Your task to perform on an android device: turn vacation reply on in the gmail app Image 0: 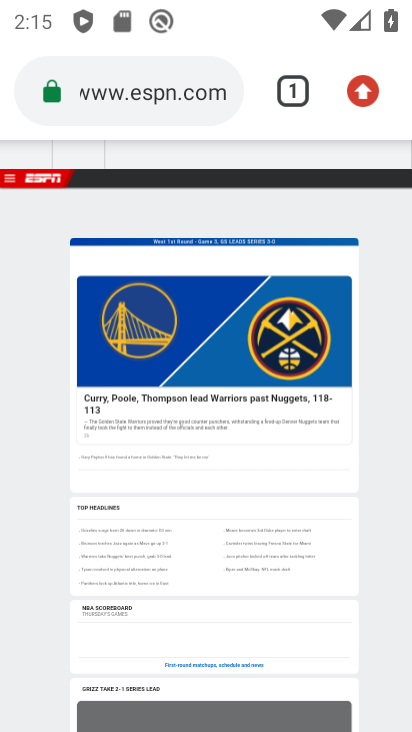
Step 0: press home button
Your task to perform on an android device: turn vacation reply on in the gmail app Image 1: 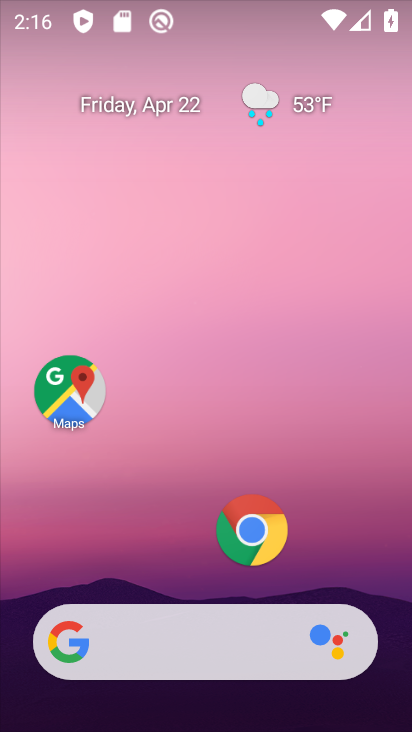
Step 1: drag from (183, 641) to (225, 316)
Your task to perform on an android device: turn vacation reply on in the gmail app Image 2: 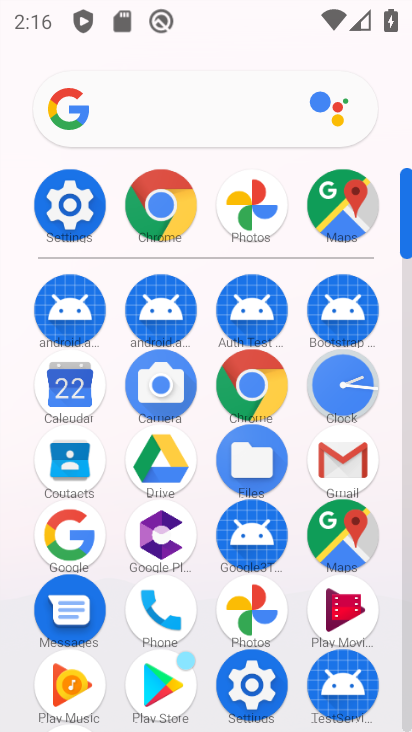
Step 2: click (332, 451)
Your task to perform on an android device: turn vacation reply on in the gmail app Image 3: 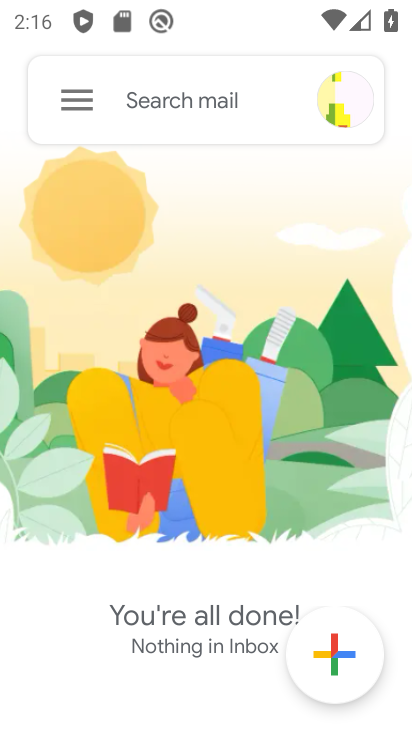
Step 3: click (83, 113)
Your task to perform on an android device: turn vacation reply on in the gmail app Image 4: 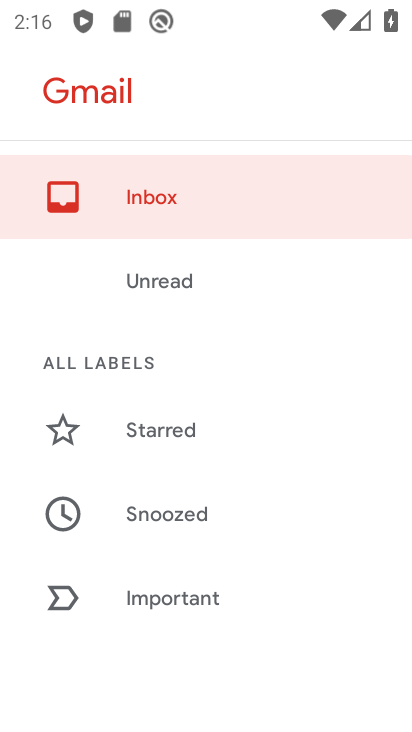
Step 4: drag from (230, 554) to (177, 184)
Your task to perform on an android device: turn vacation reply on in the gmail app Image 5: 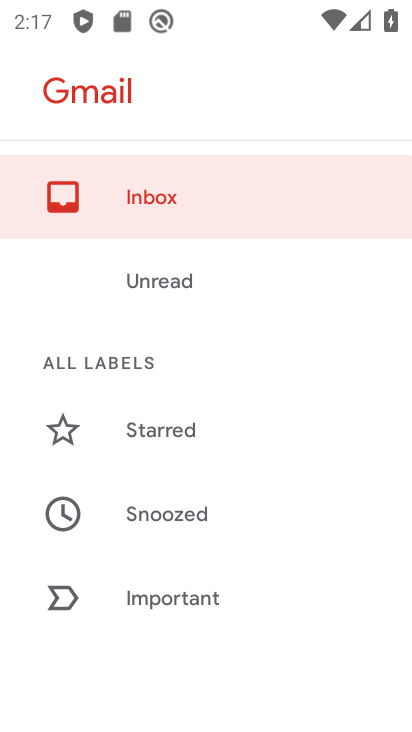
Step 5: drag from (232, 688) to (250, 10)
Your task to perform on an android device: turn vacation reply on in the gmail app Image 6: 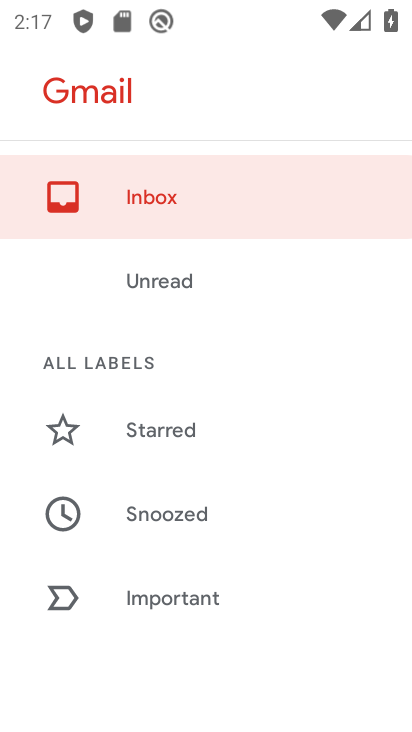
Step 6: drag from (221, 534) to (229, 77)
Your task to perform on an android device: turn vacation reply on in the gmail app Image 7: 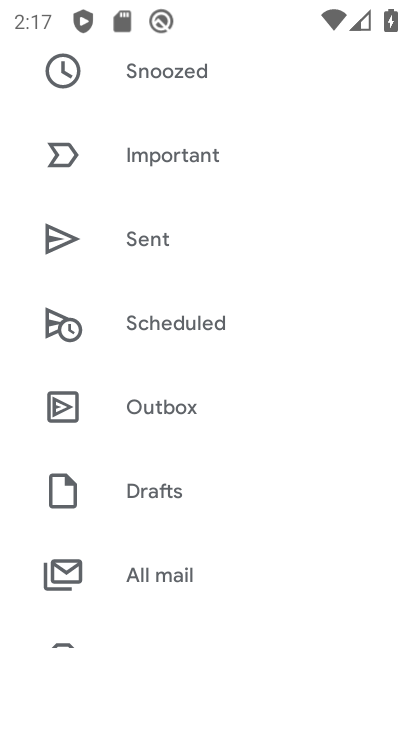
Step 7: drag from (308, 650) to (249, 2)
Your task to perform on an android device: turn vacation reply on in the gmail app Image 8: 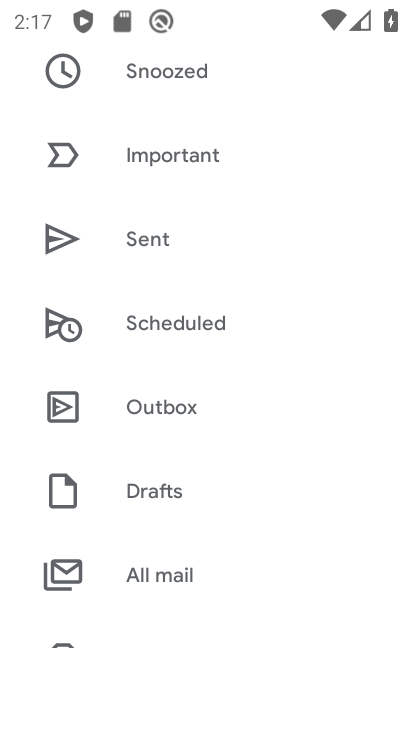
Step 8: drag from (240, 544) to (230, 28)
Your task to perform on an android device: turn vacation reply on in the gmail app Image 9: 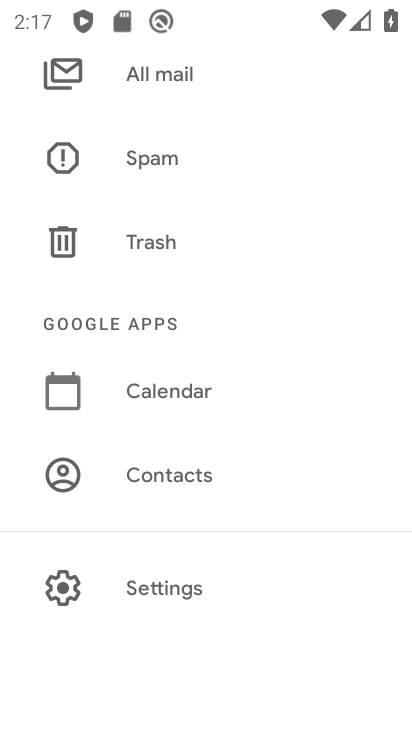
Step 9: click (189, 593)
Your task to perform on an android device: turn vacation reply on in the gmail app Image 10: 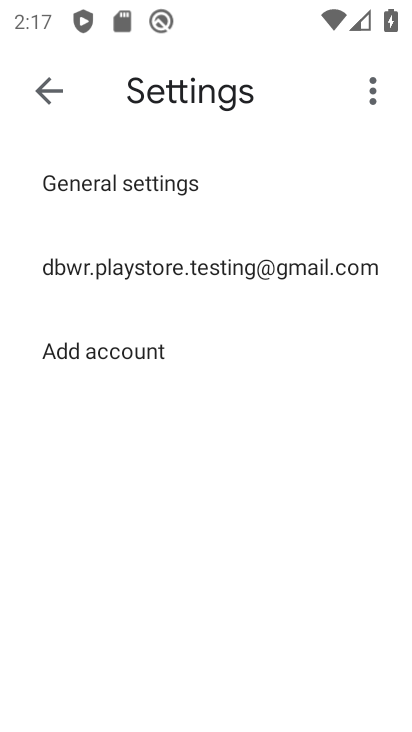
Step 10: click (285, 255)
Your task to perform on an android device: turn vacation reply on in the gmail app Image 11: 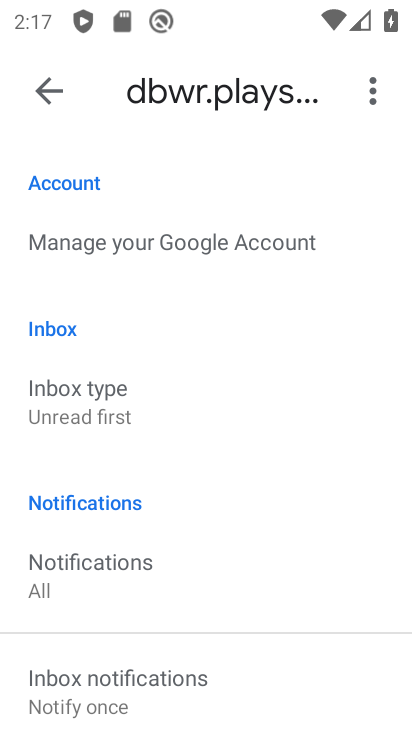
Step 11: drag from (210, 634) to (188, 51)
Your task to perform on an android device: turn vacation reply on in the gmail app Image 12: 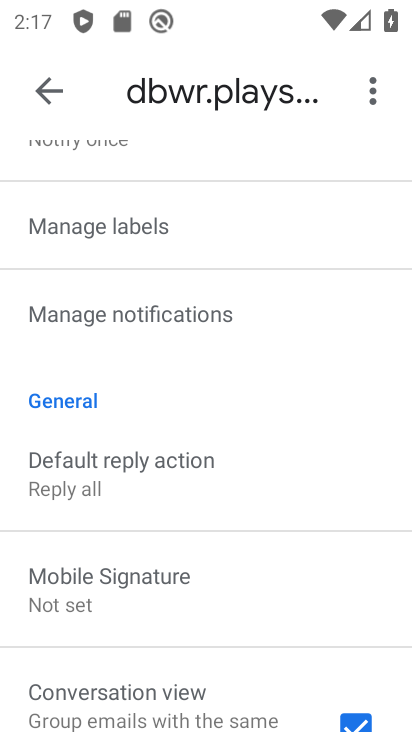
Step 12: drag from (208, 565) to (183, 41)
Your task to perform on an android device: turn vacation reply on in the gmail app Image 13: 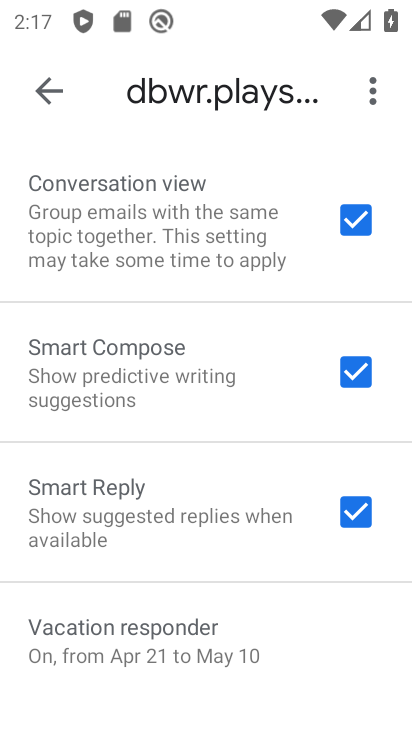
Step 13: click (188, 663)
Your task to perform on an android device: turn vacation reply on in the gmail app Image 14: 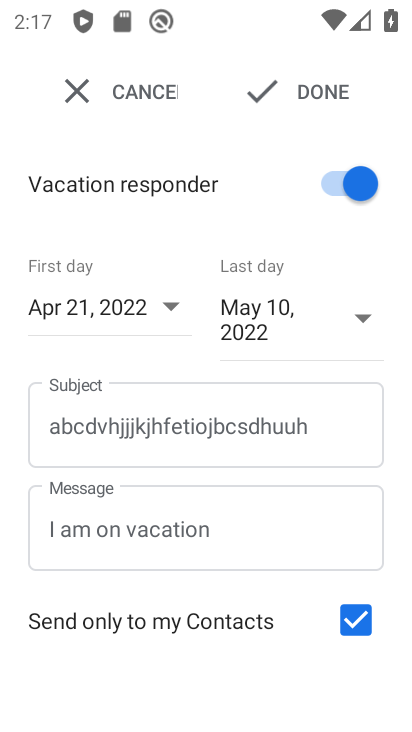
Step 14: click (285, 82)
Your task to perform on an android device: turn vacation reply on in the gmail app Image 15: 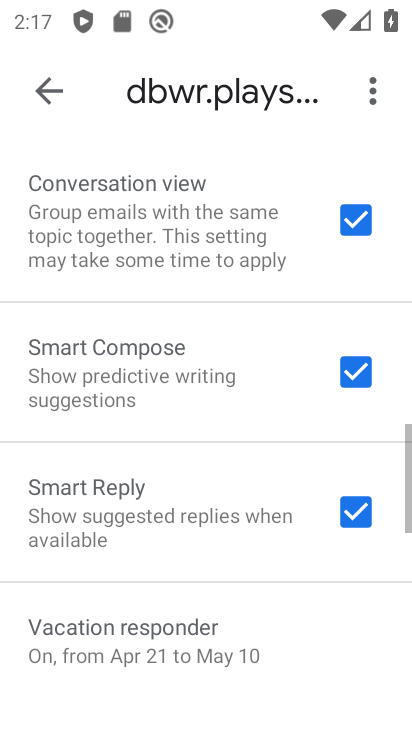
Step 15: task complete